Your task to perform on an android device: When is my next appointment? Image 0: 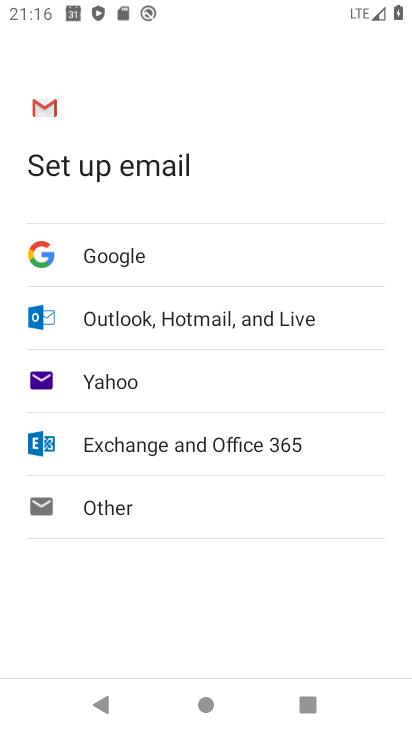
Step 0: press home button
Your task to perform on an android device: When is my next appointment? Image 1: 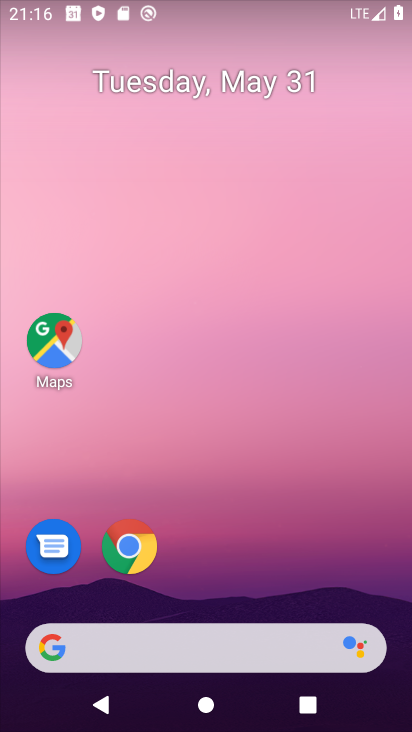
Step 1: drag from (396, 694) to (347, 69)
Your task to perform on an android device: When is my next appointment? Image 2: 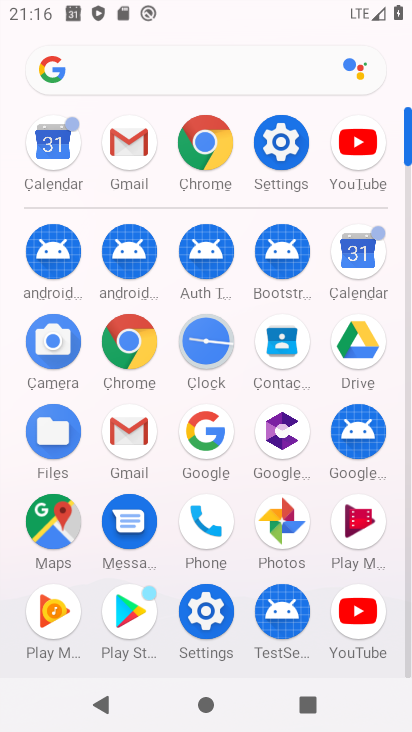
Step 2: click (345, 270)
Your task to perform on an android device: When is my next appointment? Image 3: 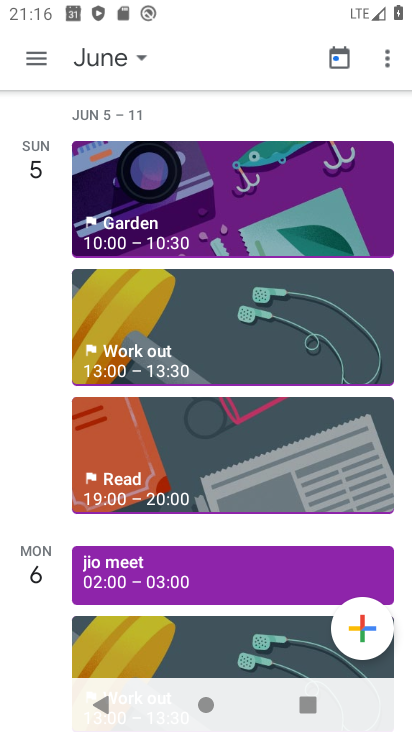
Step 3: click (41, 56)
Your task to perform on an android device: When is my next appointment? Image 4: 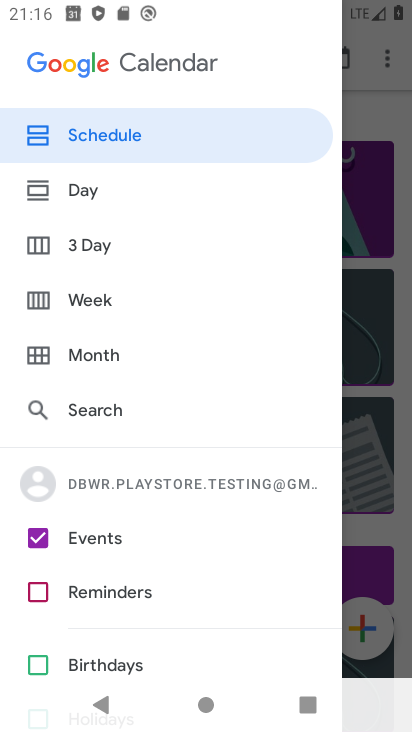
Step 4: click (109, 137)
Your task to perform on an android device: When is my next appointment? Image 5: 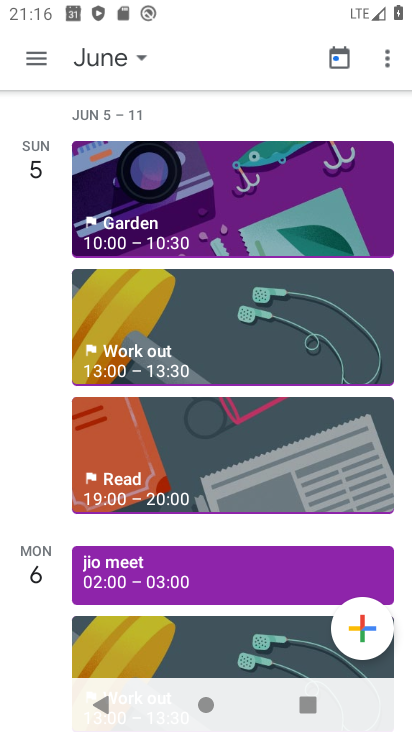
Step 5: click (138, 54)
Your task to perform on an android device: When is my next appointment? Image 6: 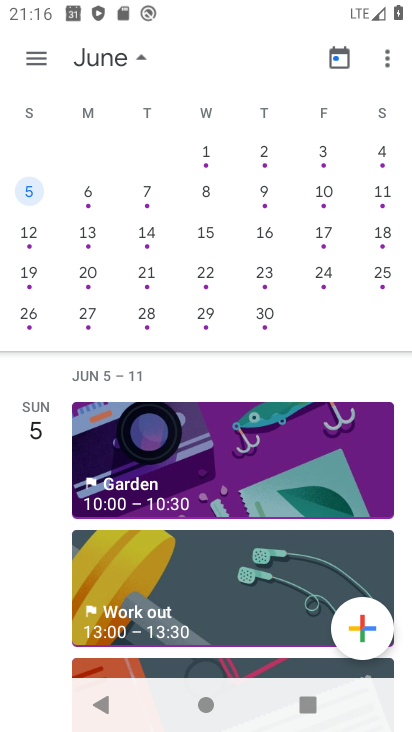
Step 6: task complete